Your task to perform on an android device: Go to wifi settings Image 0: 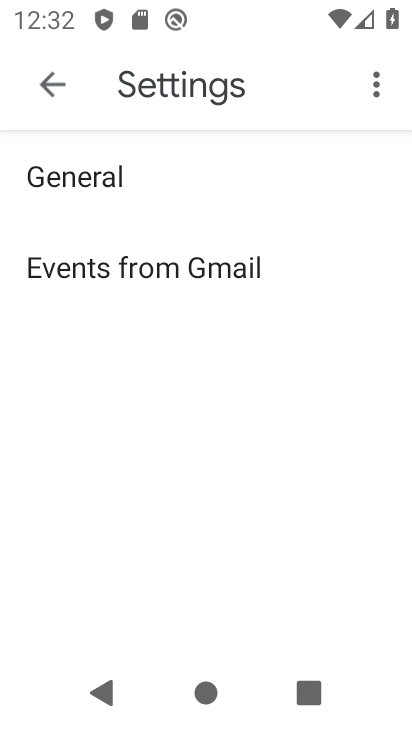
Step 0: click (51, 89)
Your task to perform on an android device: Go to wifi settings Image 1: 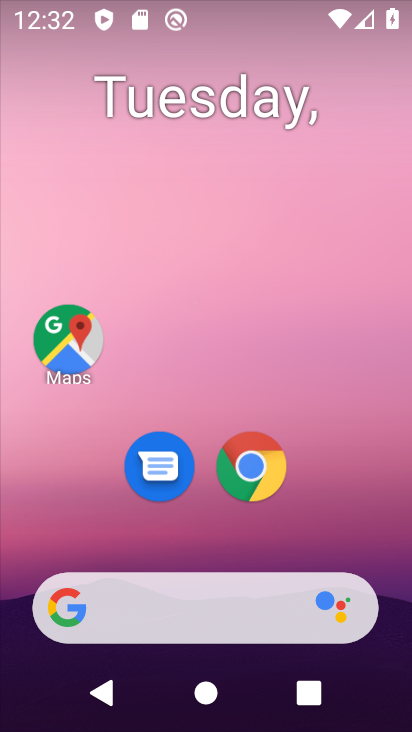
Step 1: task complete